Your task to perform on an android device: uninstall "Google Photos" Image 0: 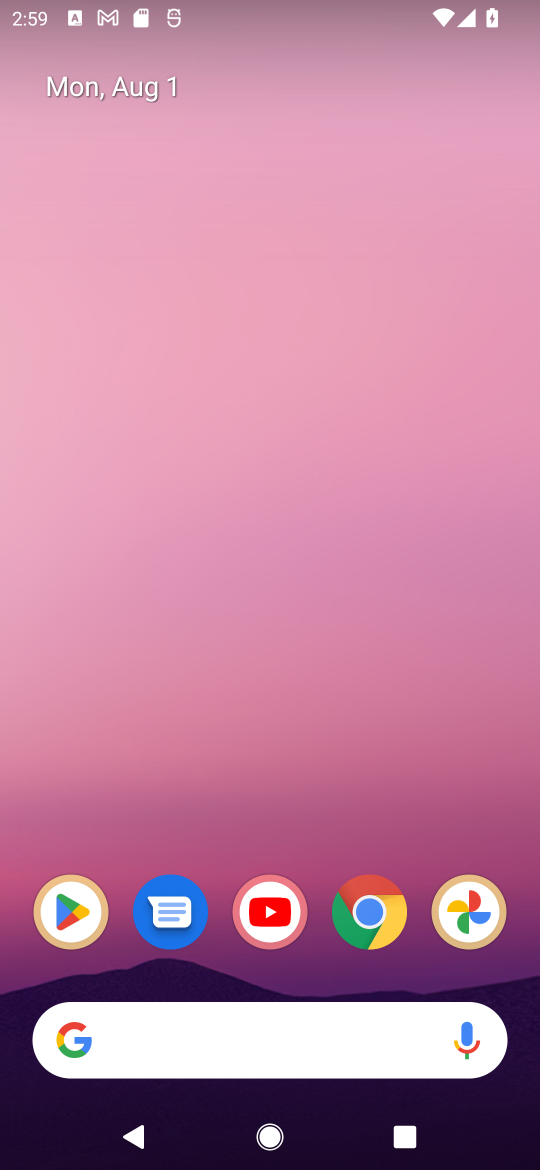
Step 0: click (66, 923)
Your task to perform on an android device: uninstall "Google Photos" Image 1: 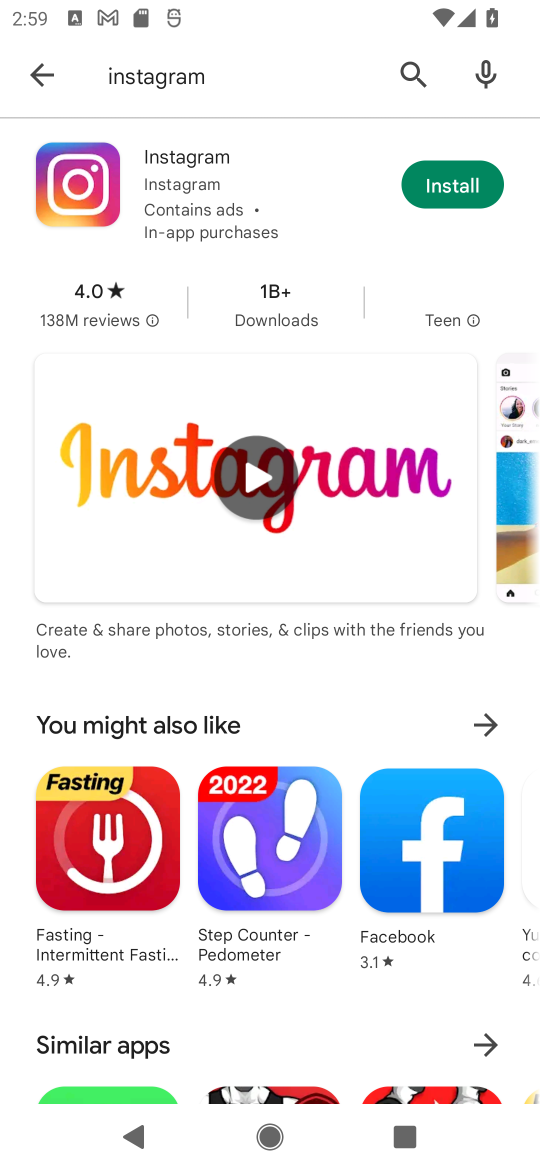
Step 1: click (430, 73)
Your task to perform on an android device: uninstall "Google Photos" Image 2: 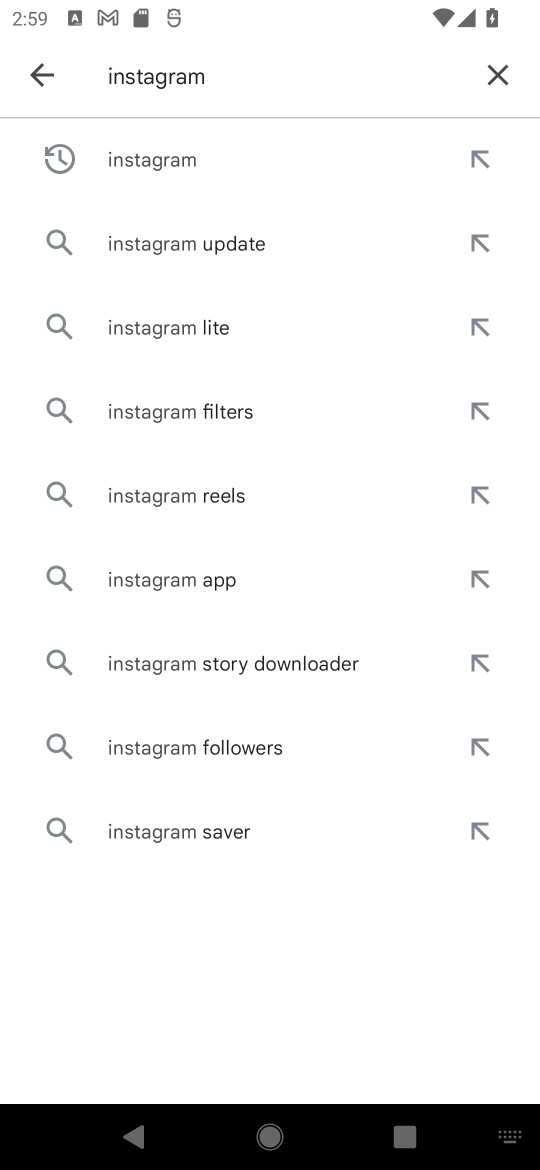
Step 2: click (503, 81)
Your task to perform on an android device: uninstall "Google Photos" Image 3: 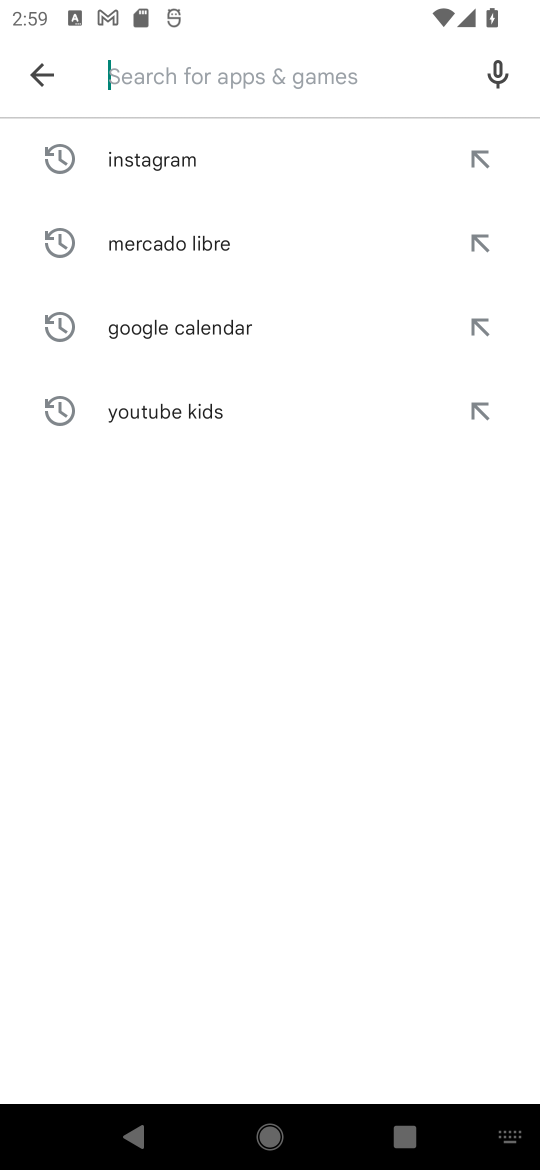
Step 3: type "Google Photos"
Your task to perform on an android device: uninstall "Google Photos" Image 4: 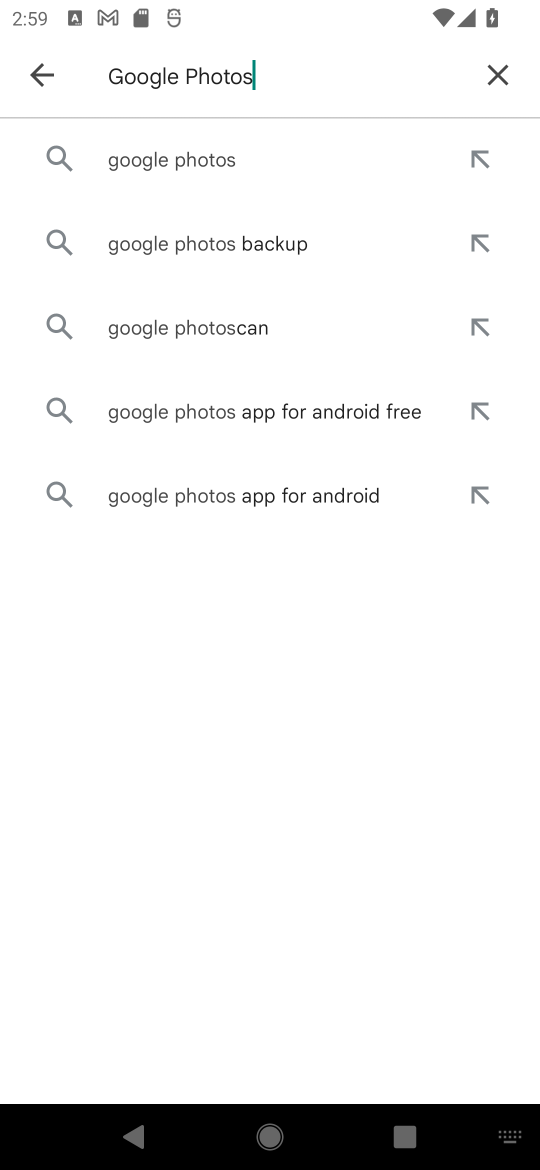
Step 4: click (185, 161)
Your task to perform on an android device: uninstall "Google Photos" Image 5: 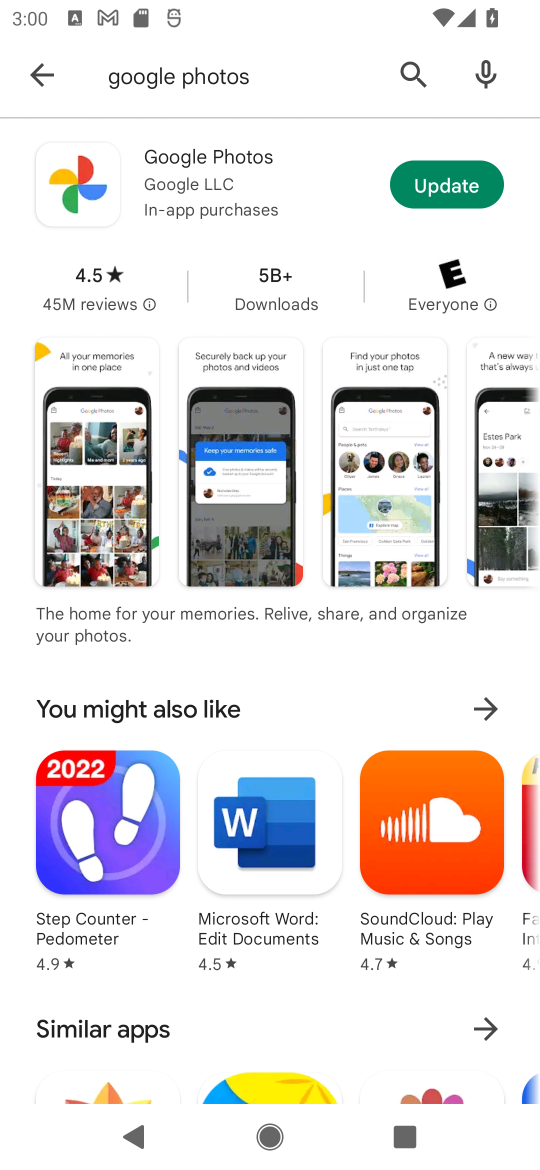
Step 5: click (101, 191)
Your task to perform on an android device: uninstall "Google Photos" Image 6: 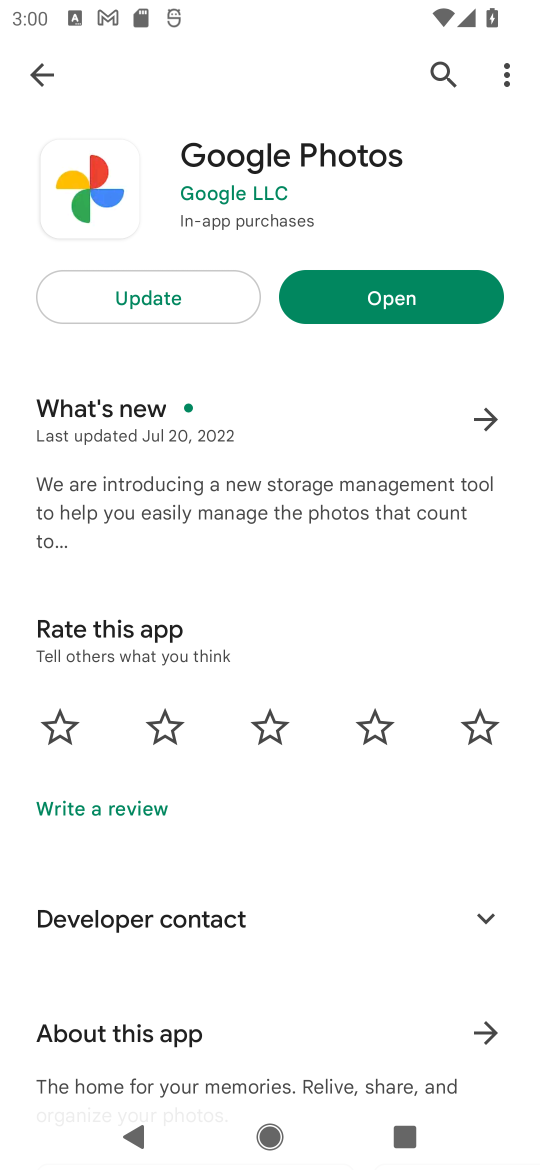
Step 6: press home button
Your task to perform on an android device: uninstall "Google Photos" Image 7: 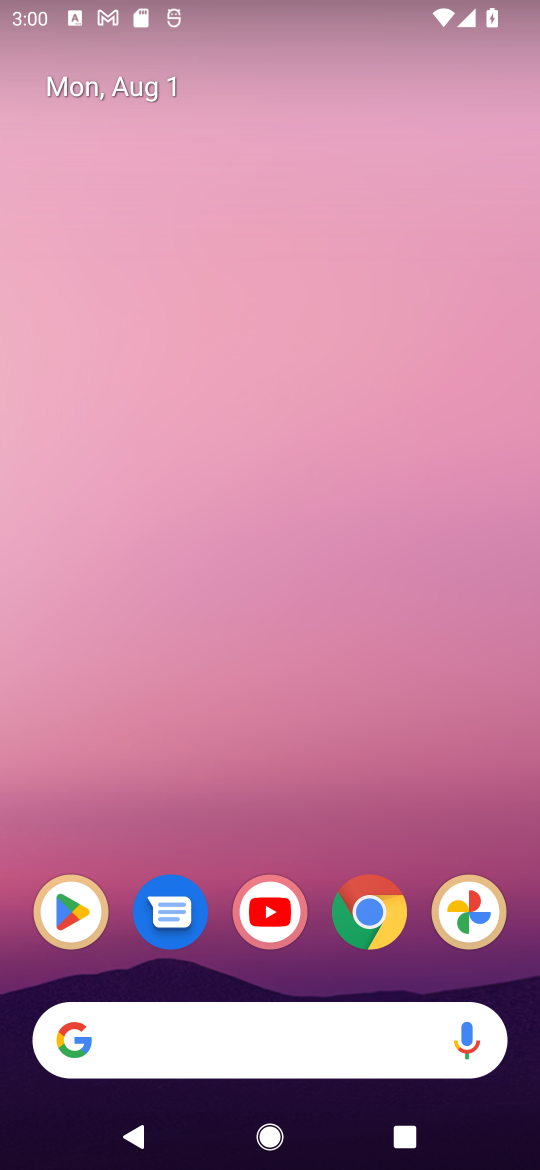
Step 7: click (472, 919)
Your task to perform on an android device: uninstall "Google Photos" Image 8: 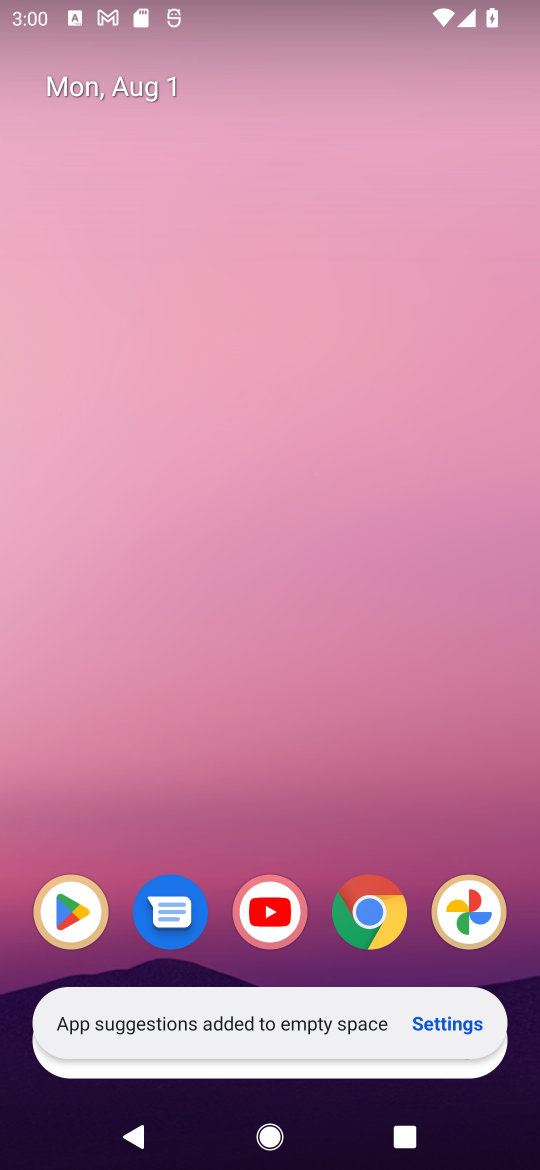
Step 8: click (475, 896)
Your task to perform on an android device: uninstall "Google Photos" Image 9: 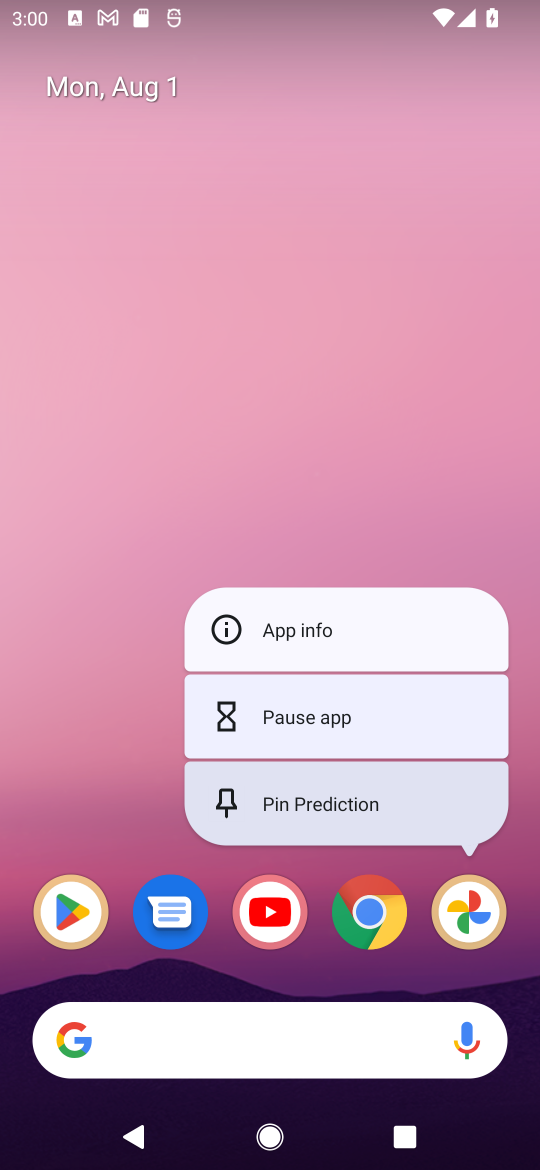
Step 9: click (306, 626)
Your task to perform on an android device: uninstall "Google Photos" Image 10: 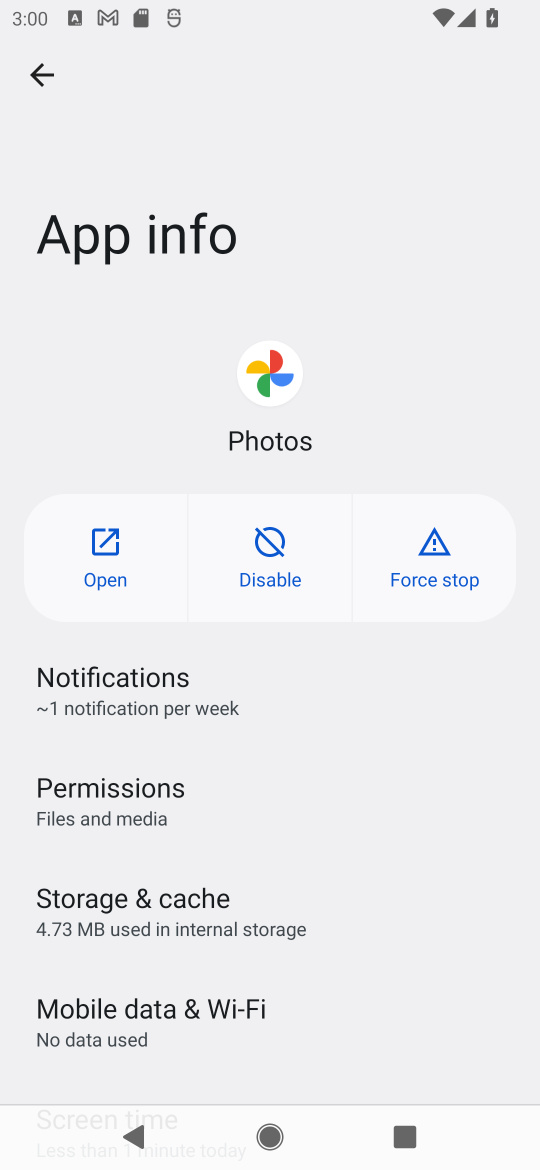
Step 10: task complete